Your task to perform on an android device: Open Google Maps and go to "Timeline" Image 0: 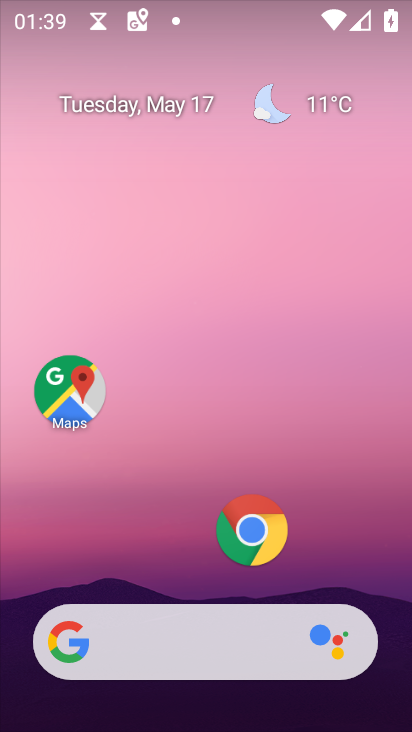
Step 0: drag from (157, 583) to (187, 193)
Your task to perform on an android device: Open Google Maps and go to "Timeline" Image 1: 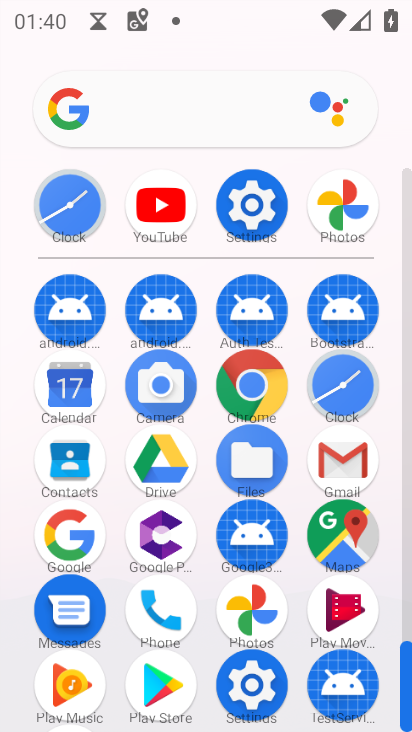
Step 1: click (334, 532)
Your task to perform on an android device: Open Google Maps and go to "Timeline" Image 2: 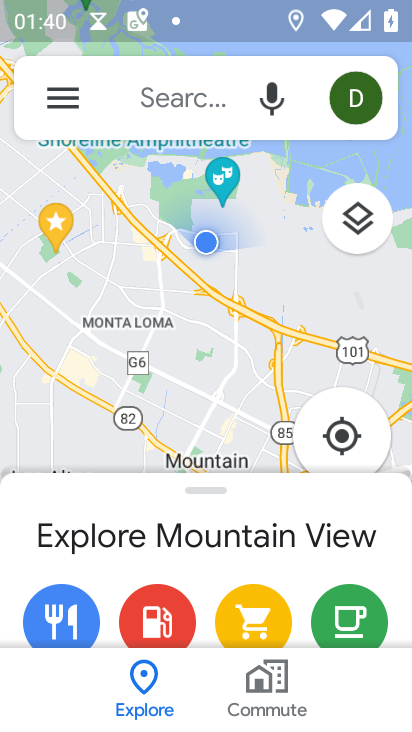
Step 2: click (58, 82)
Your task to perform on an android device: Open Google Maps and go to "Timeline" Image 3: 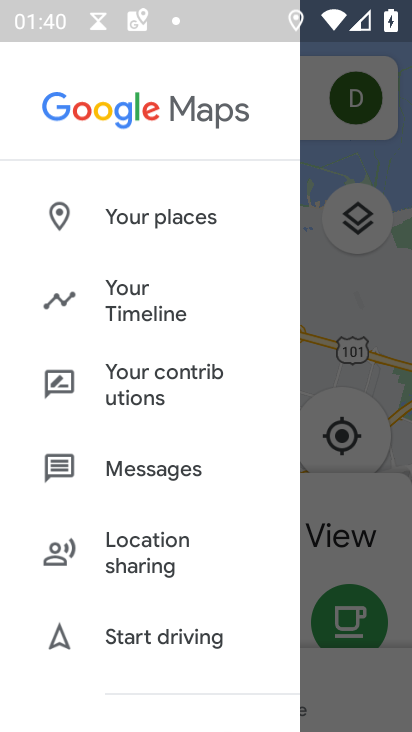
Step 3: click (130, 287)
Your task to perform on an android device: Open Google Maps and go to "Timeline" Image 4: 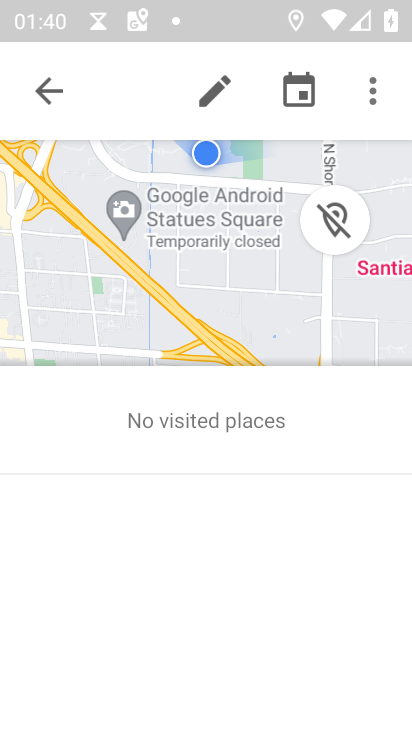
Step 4: task complete